Your task to perform on an android device: set the timer Image 0: 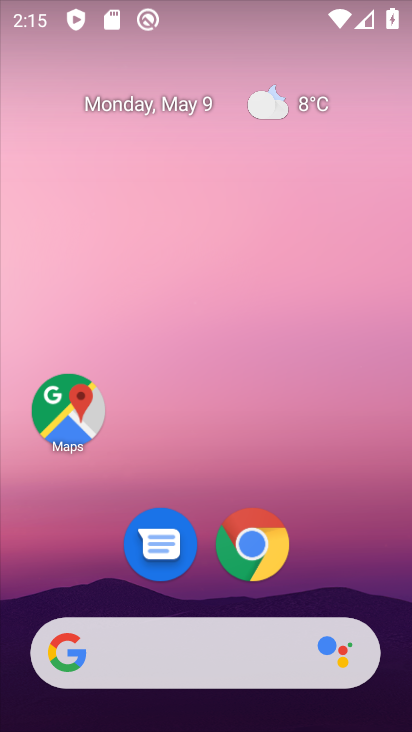
Step 0: drag from (283, 502) to (189, 151)
Your task to perform on an android device: set the timer Image 1: 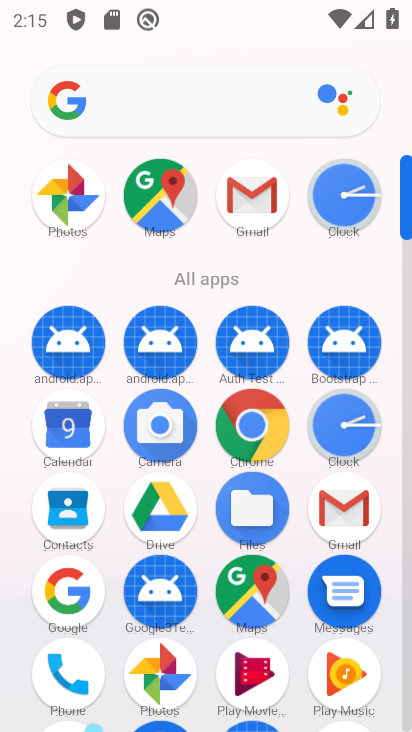
Step 1: click (334, 213)
Your task to perform on an android device: set the timer Image 2: 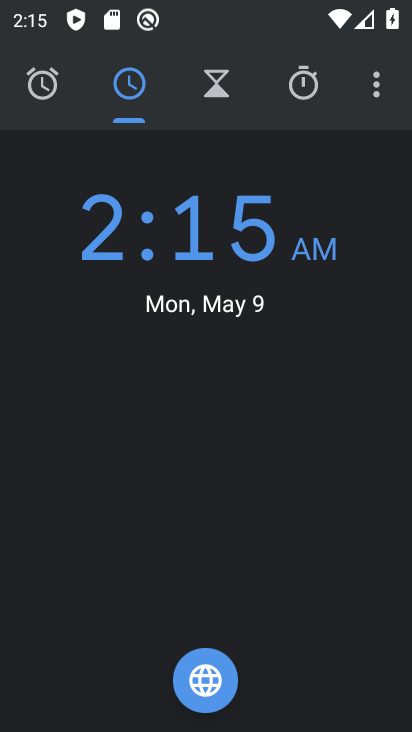
Step 2: click (220, 95)
Your task to perform on an android device: set the timer Image 3: 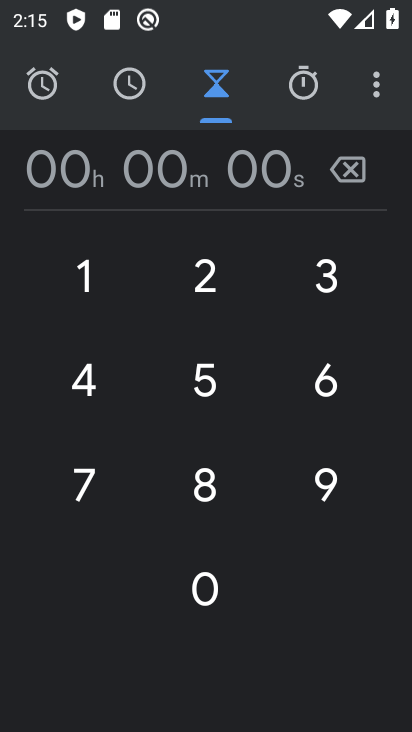
Step 3: click (208, 382)
Your task to perform on an android device: set the timer Image 4: 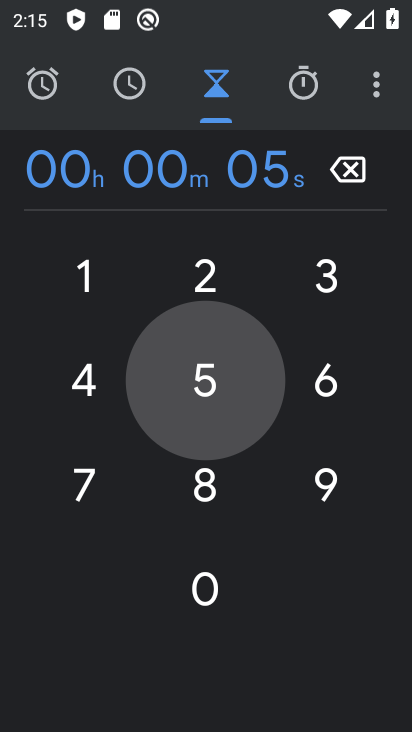
Step 4: click (204, 262)
Your task to perform on an android device: set the timer Image 5: 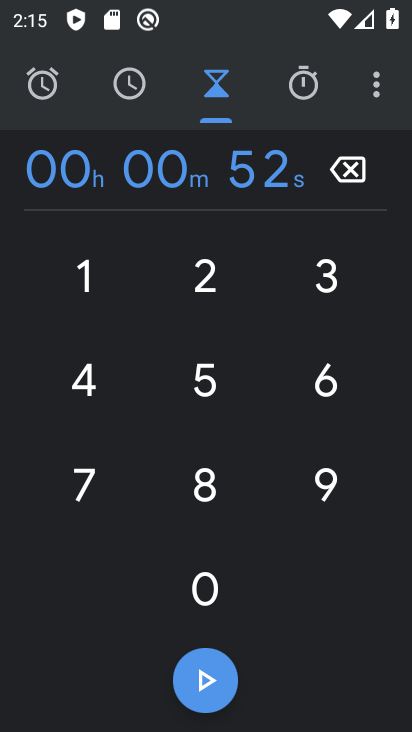
Step 5: click (84, 389)
Your task to perform on an android device: set the timer Image 6: 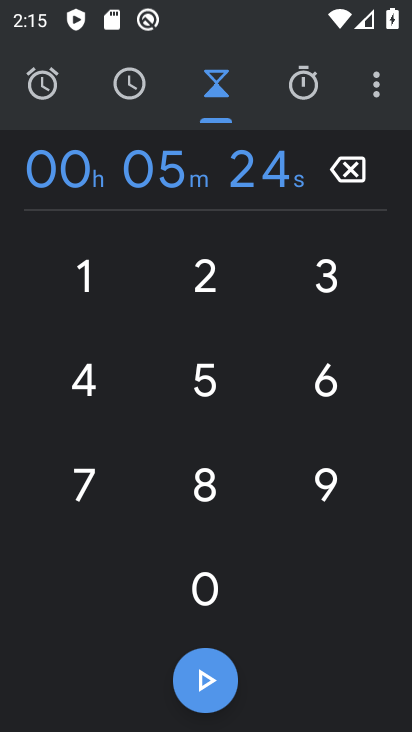
Step 6: click (91, 278)
Your task to perform on an android device: set the timer Image 7: 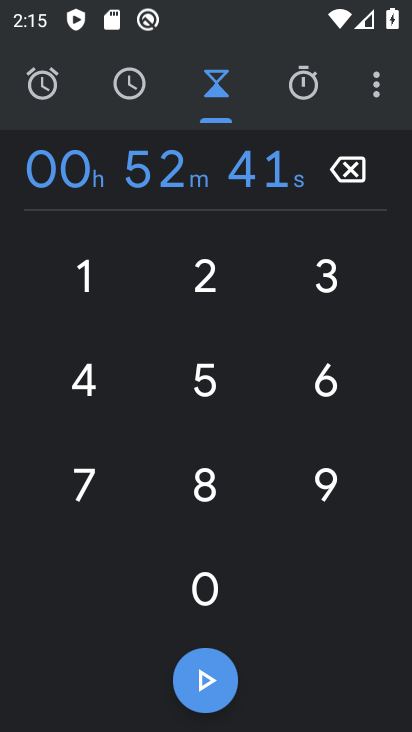
Step 7: click (91, 278)
Your task to perform on an android device: set the timer Image 8: 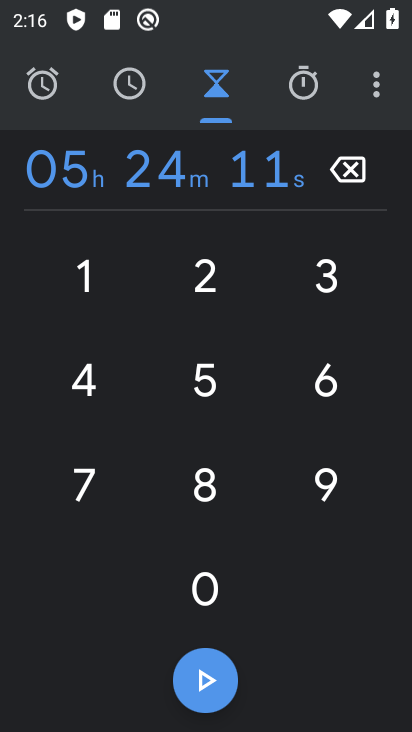
Step 8: click (203, 681)
Your task to perform on an android device: set the timer Image 9: 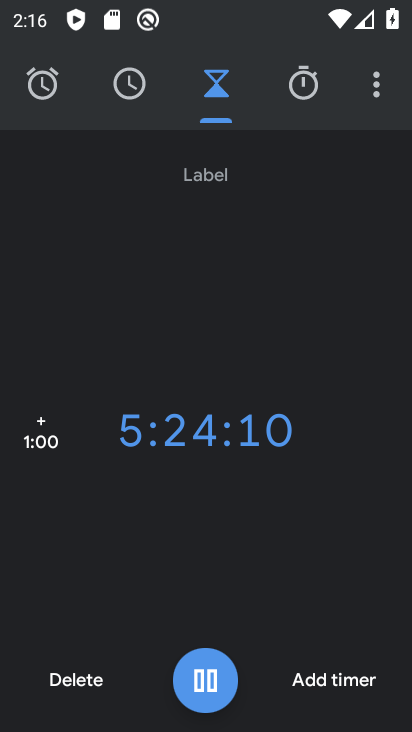
Step 9: click (336, 678)
Your task to perform on an android device: set the timer Image 10: 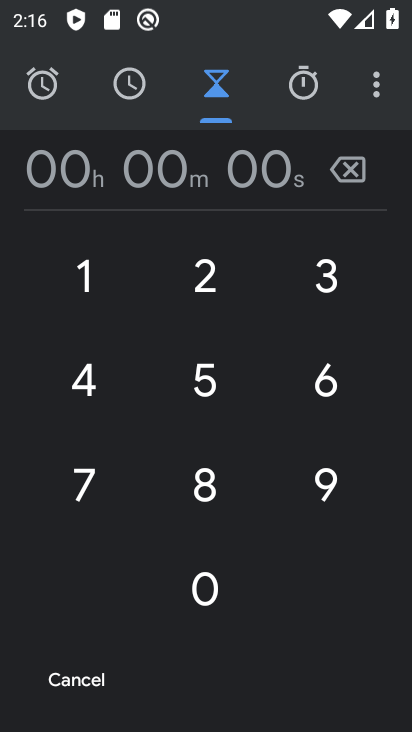
Step 10: task complete